Your task to perform on an android device: turn off improve location accuracy Image 0: 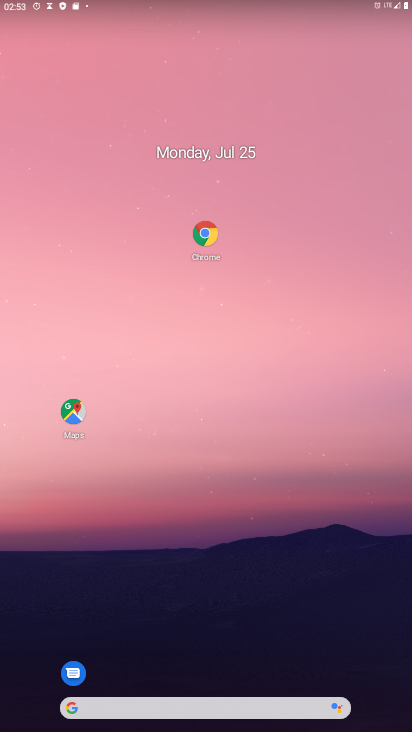
Step 0: drag from (190, 636) to (265, 1)
Your task to perform on an android device: turn off improve location accuracy Image 1: 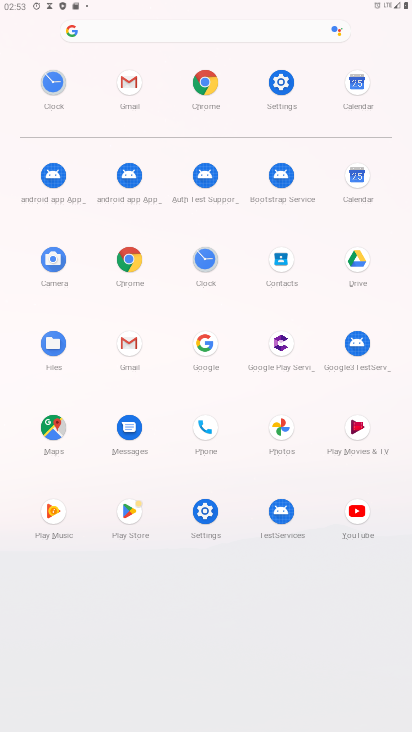
Step 1: click (281, 81)
Your task to perform on an android device: turn off improve location accuracy Image 2: 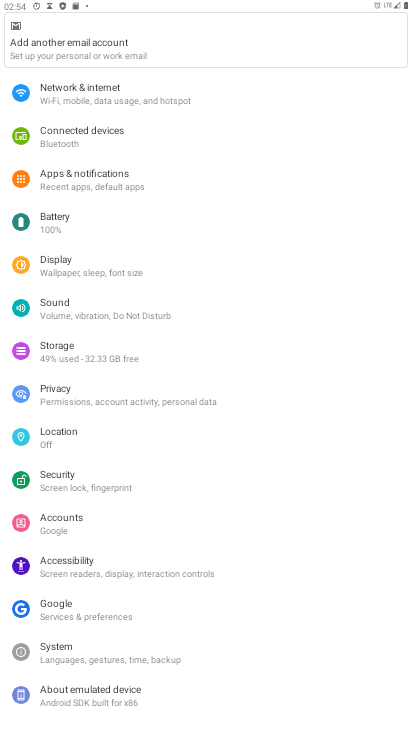
Step 2: click (113, 436)
Your task to perform on an android device: turn off improve location accuracy Image 3: 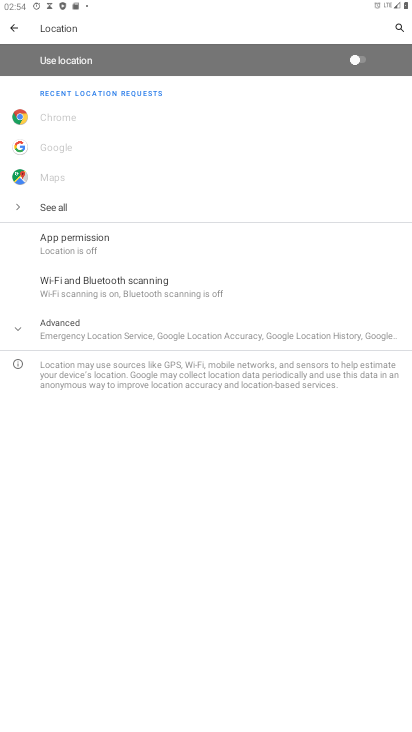
Step 3: click (250, 334)
Your task to perform on an android device: turn off improve location accuracy Image 4: 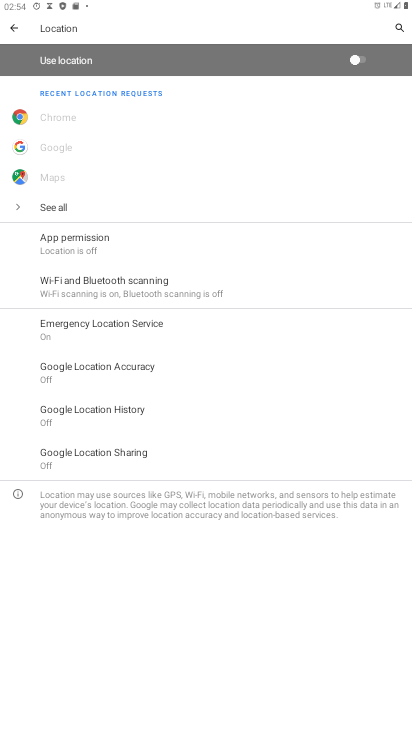
Step 4: click (133, 374)
Your task to perform on an android device: turn off improve location accuracy Image 5: 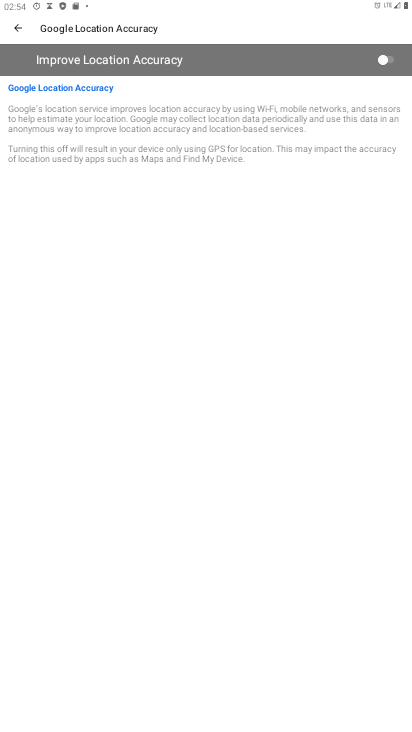
Step 5: click (395, 58)
Your task to perform on an android device: turn off improve location accuracy Image 6: 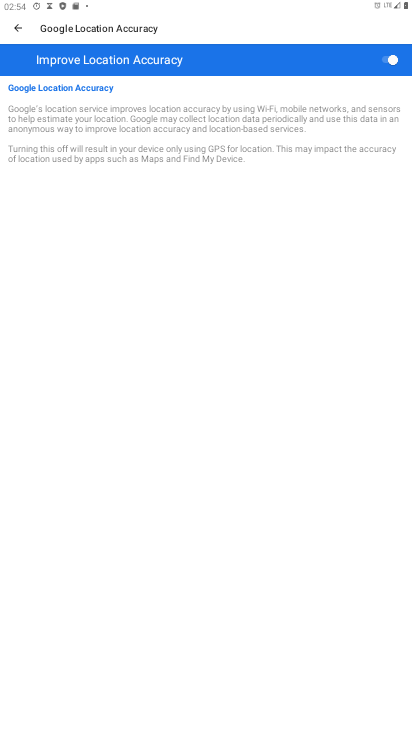
Step 6: task complete